Your task to perform on an android device: toggle notifications settings in the gmail app Image 0: 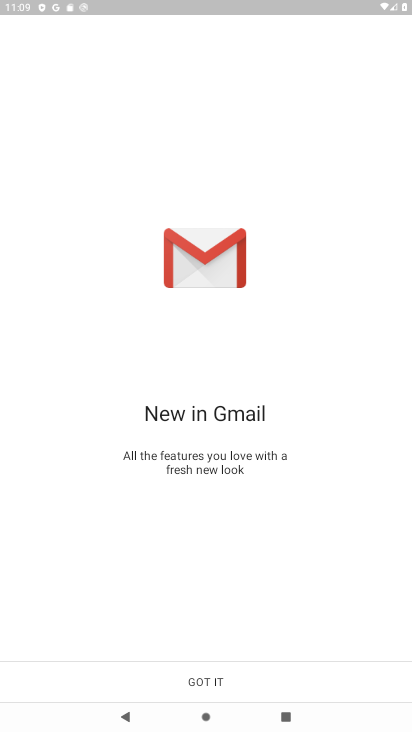
Step 0: click (284, 672)
Your task to perform on an android device: toggle notifications settings in the gmail app Image 1: 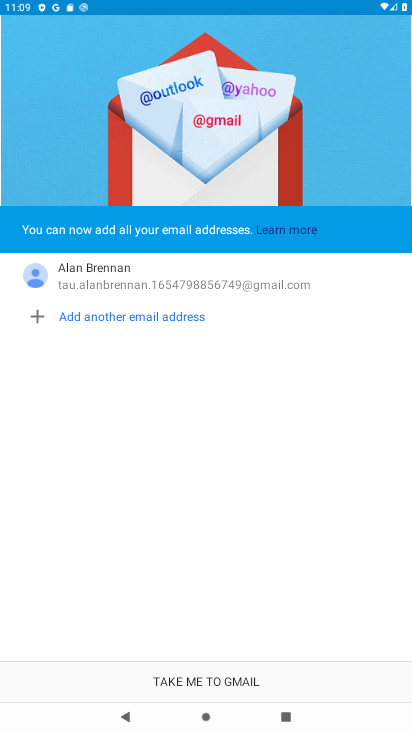
Step 1: click (283, 678)
Your task to perform on an android device: toggle notifications settings in the gmail app Image 2: 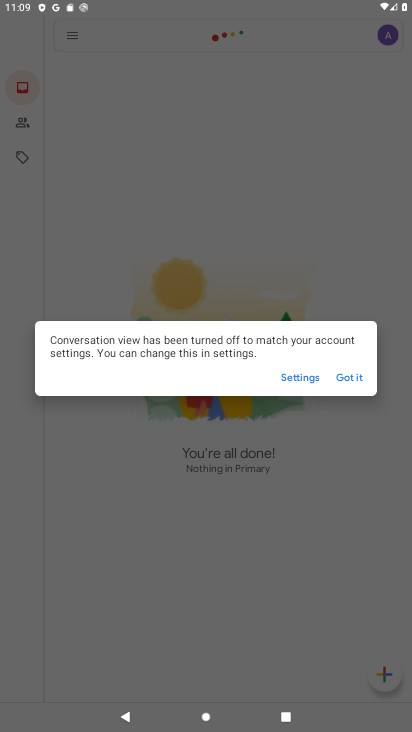
Step 2: click (359, 372)
Your task to perform on an android device: toggle notifications settings in the gmail app Image 3: 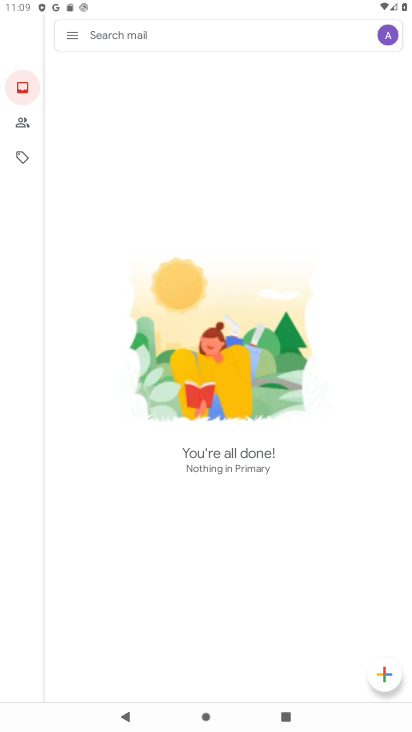
Step 3: click (70, 37)
Your task to perform on an android device: toggle notifications settings in the gmail app Image 4: 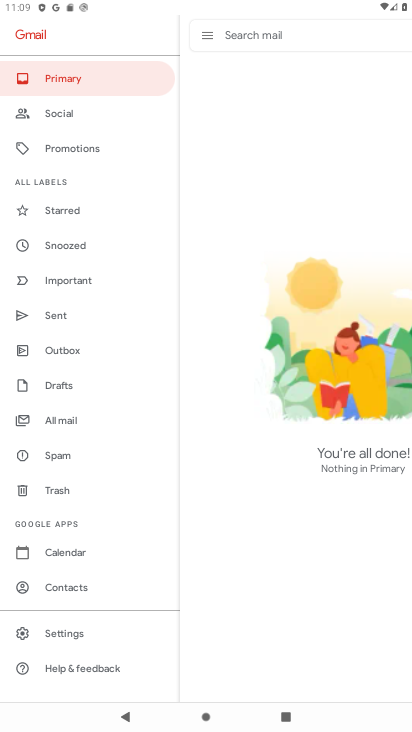
Step 4: click (74, 630)
Your task to perform on an android device: toggle notifications settings in the gmail app Image 5: 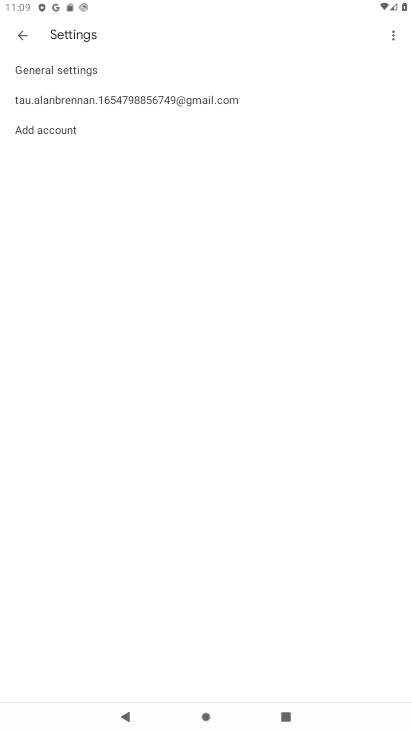
Step 5: click (152, 94)
Your task to perform on an android device: toggle notifications settings in the gmail app Image 6: 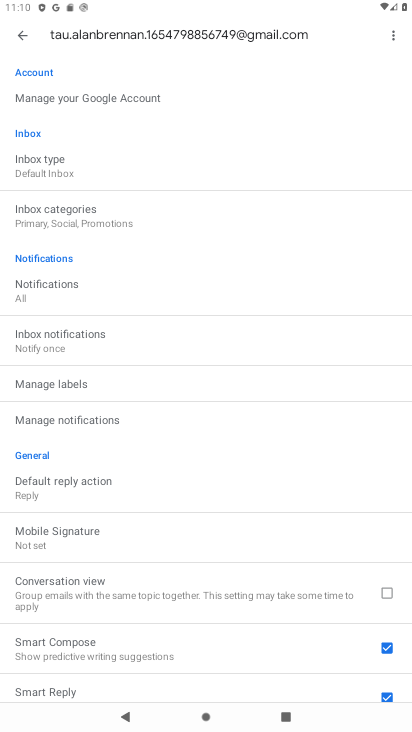
Step 6: click (101, 414)
Your task to perform on an android device: toggle notifications settings in the gmail app Image 7: 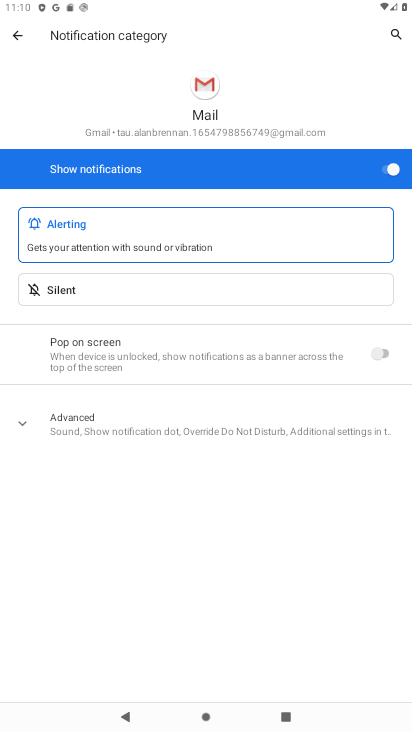
Step 7: click (339, 291)
Your task to perform on an android device: toggle notifications settings in the gmail app Image 8: 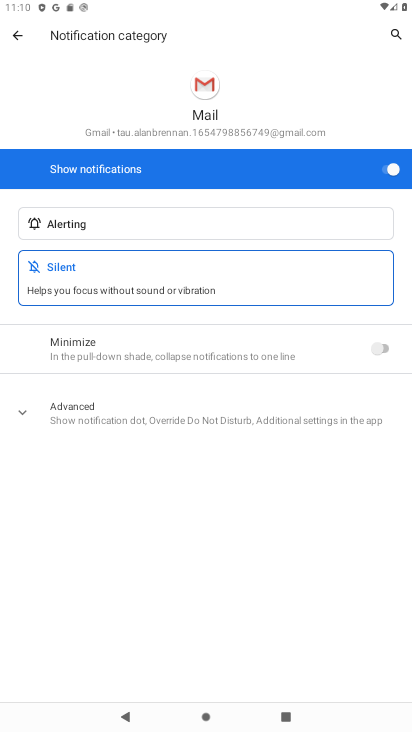
Step 8: click (389, 339)
Your task to perform on an android device: toggle notifications settings in the gmail app Image 9: 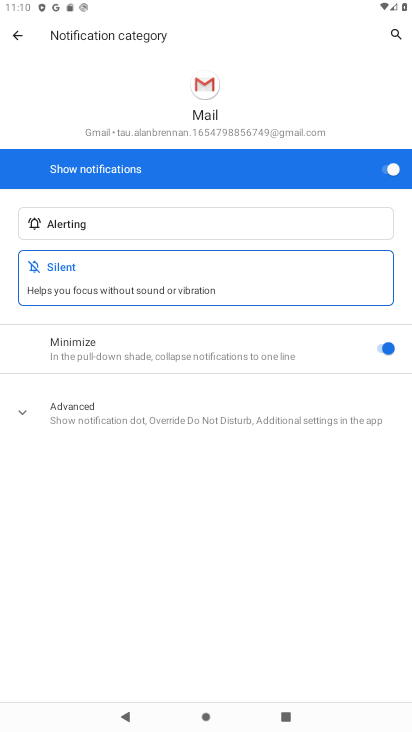
Step 9: task complete